Your task to perform on an android device: Go to CNN.com Image 0: 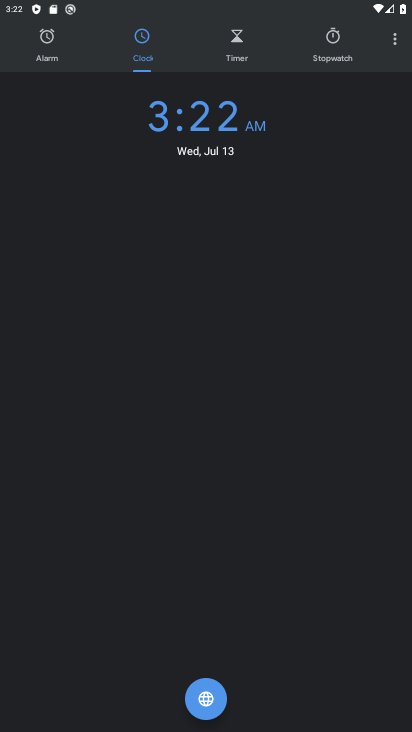
Step 0: press back button
Your task to perform on an android device: Go to CNN.com Image 1: 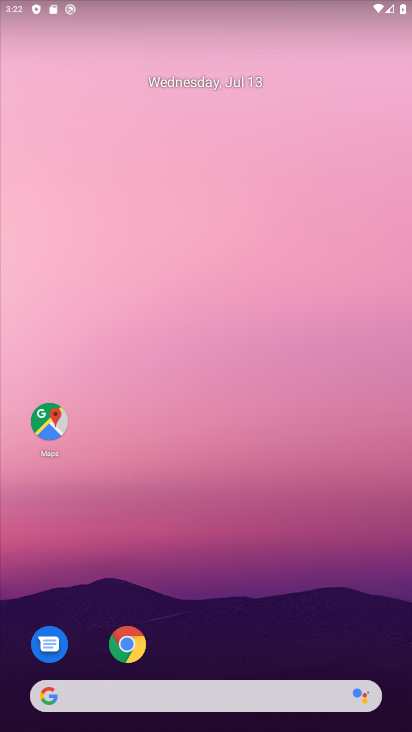
Step 1: click (124, 655)
Your task to perform on an android device: Go to CNN.com Image 2: 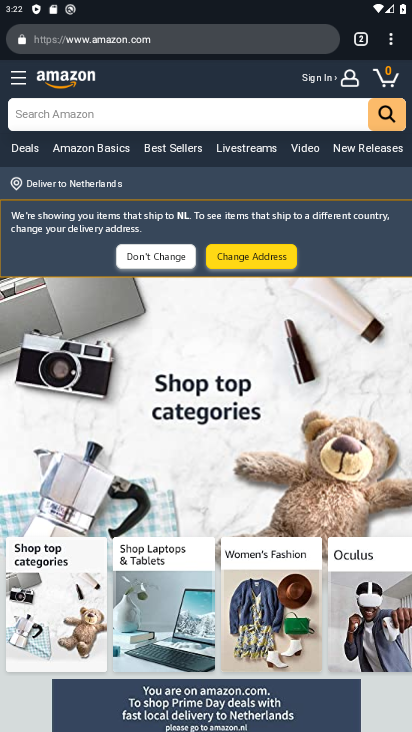
Step 2: click (355, 44)
Your task to perform on an android device: Go to CNN.com Image 3: 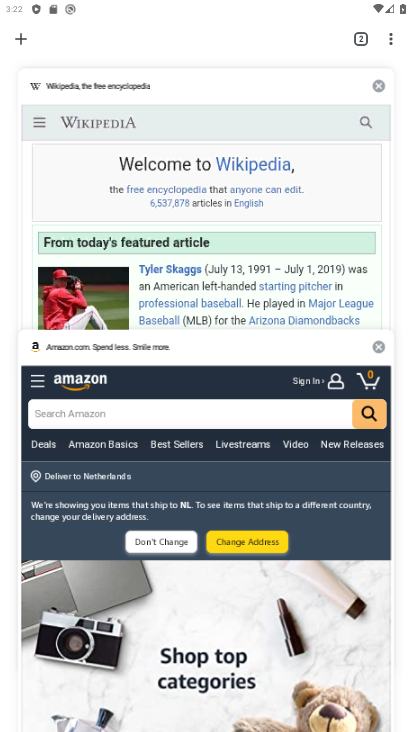
Step 3: click (12, 38)
Your task to perform on an android device: Go to CNN.com Image 4: 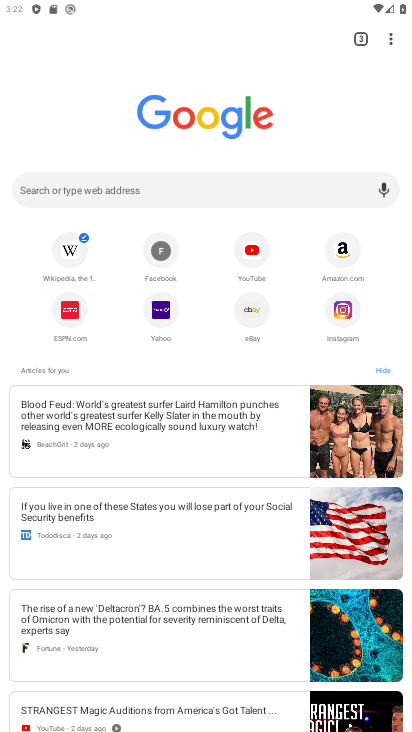
Step 4: click (171, 175)
Your task to perform on an android device: Go to CNN.com Image 5: 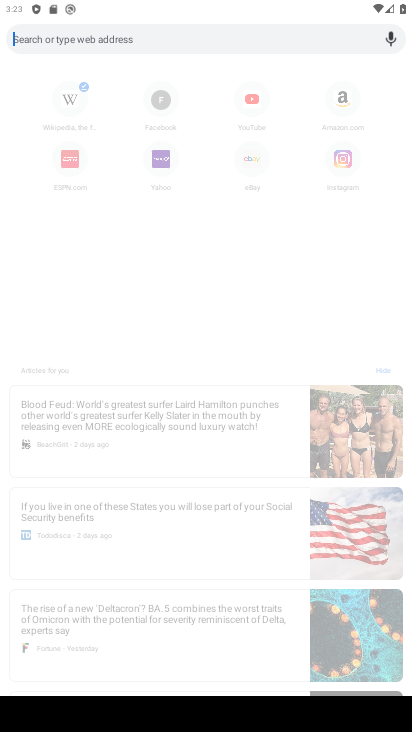
Step 5: type "cnn.com"
Your task to perform on an android device: Go to CNN.com Image 6: 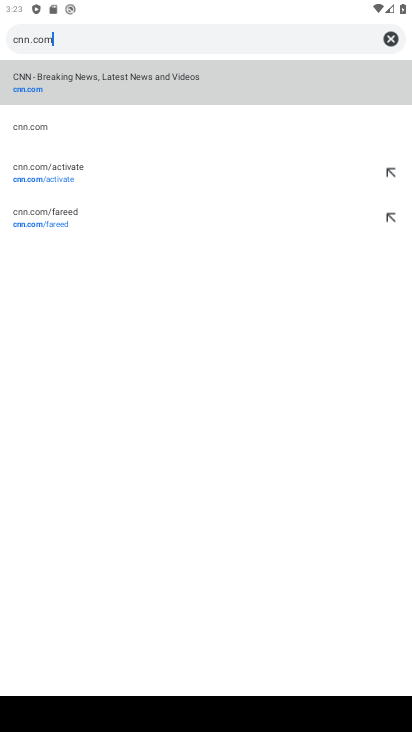
Step 6: click (43, 92)
Your task to perform on an android device: Go to CNN.com Image 7: 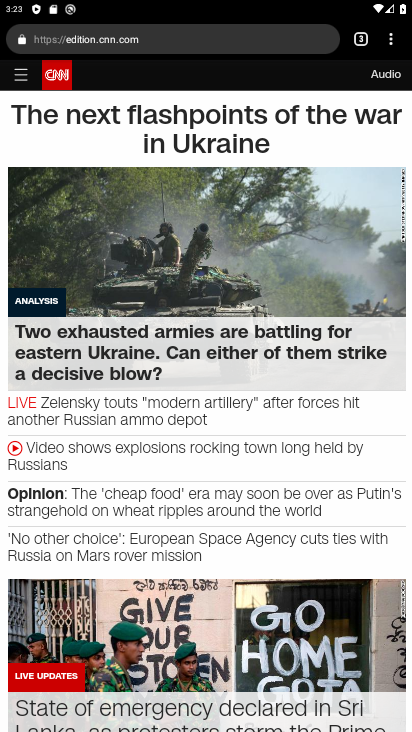
Step 7: task complete